Your task to perform on an android device: What's on the menu at Chipotle? Image 0: 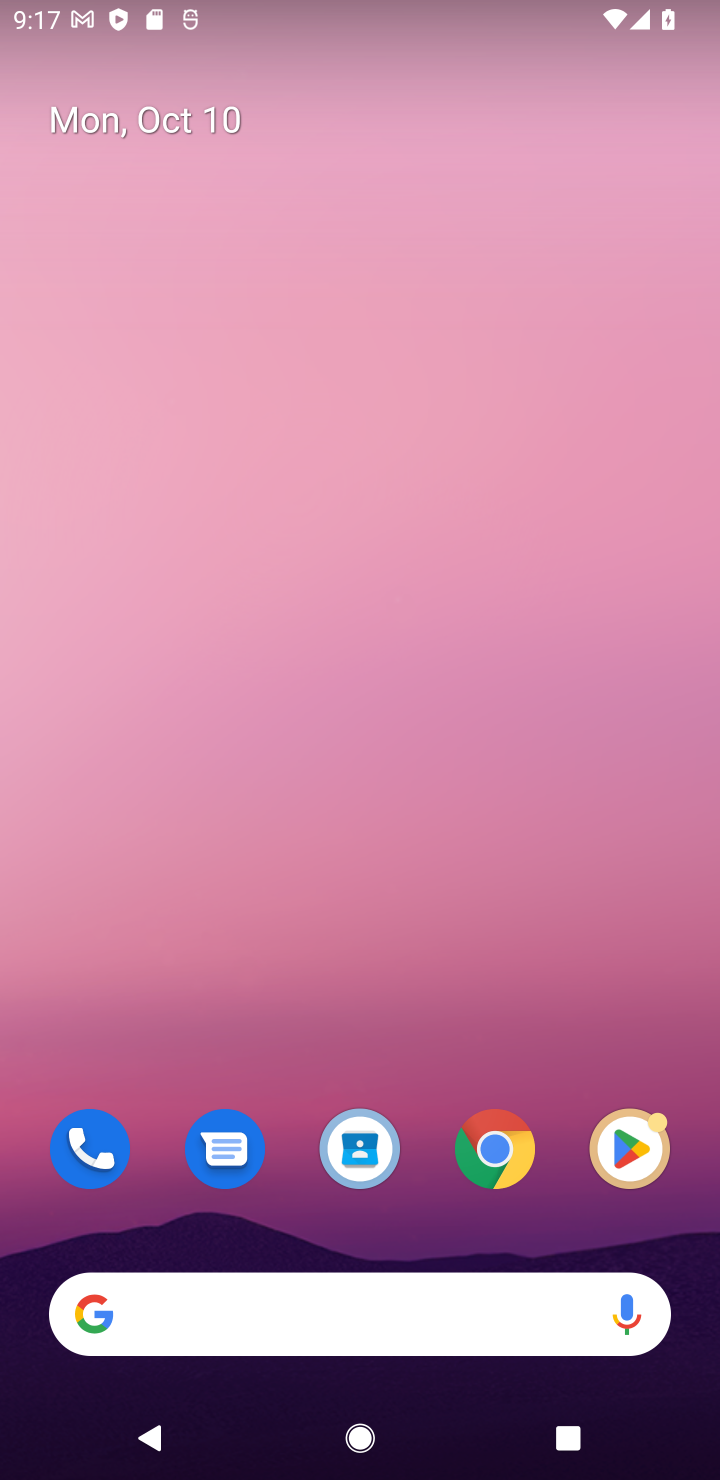
Step 0: click (257, 1317)
Your task to perform on an android device: What's on the menu at Chipotle? Image 1: 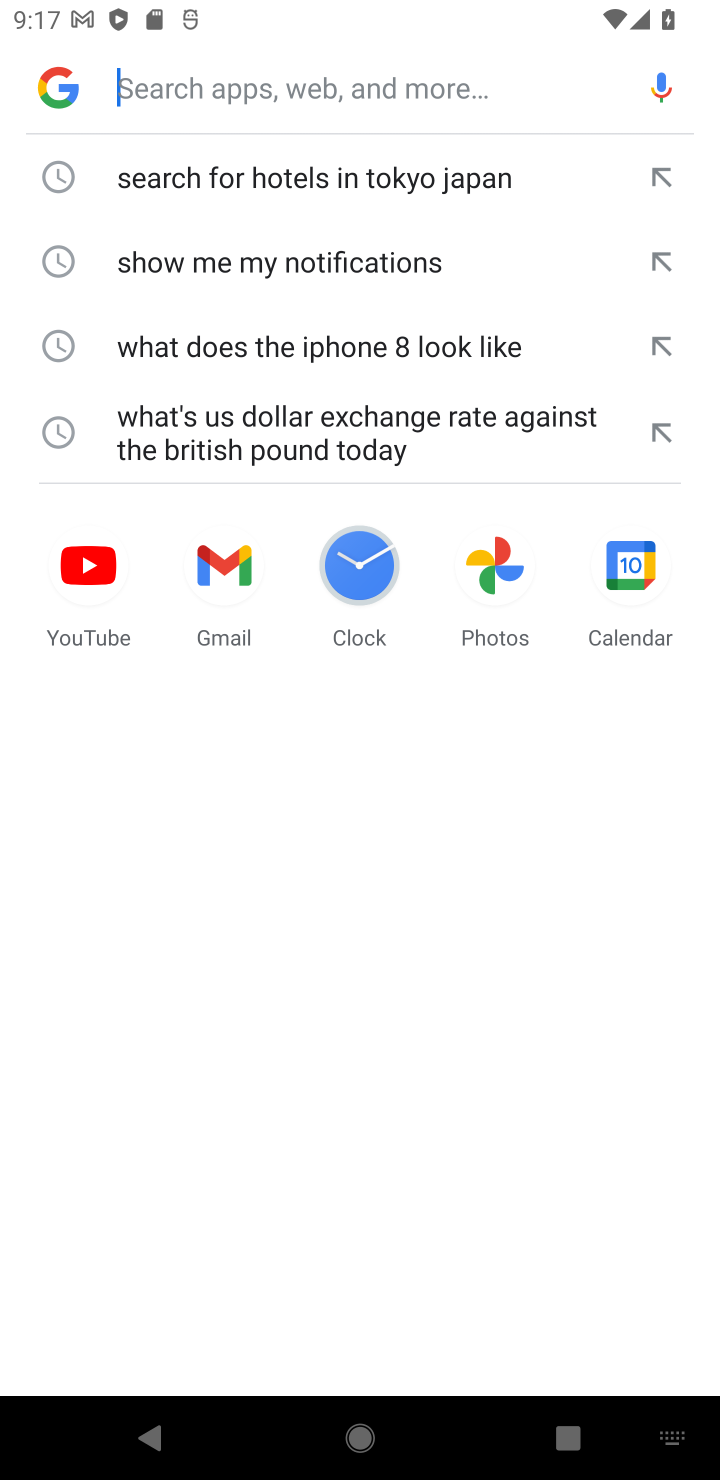
Step 1: type "What's on the menu at Chipotle?"
Your task to perform on an android device: What's on the menu at Chipotle? Image 2: 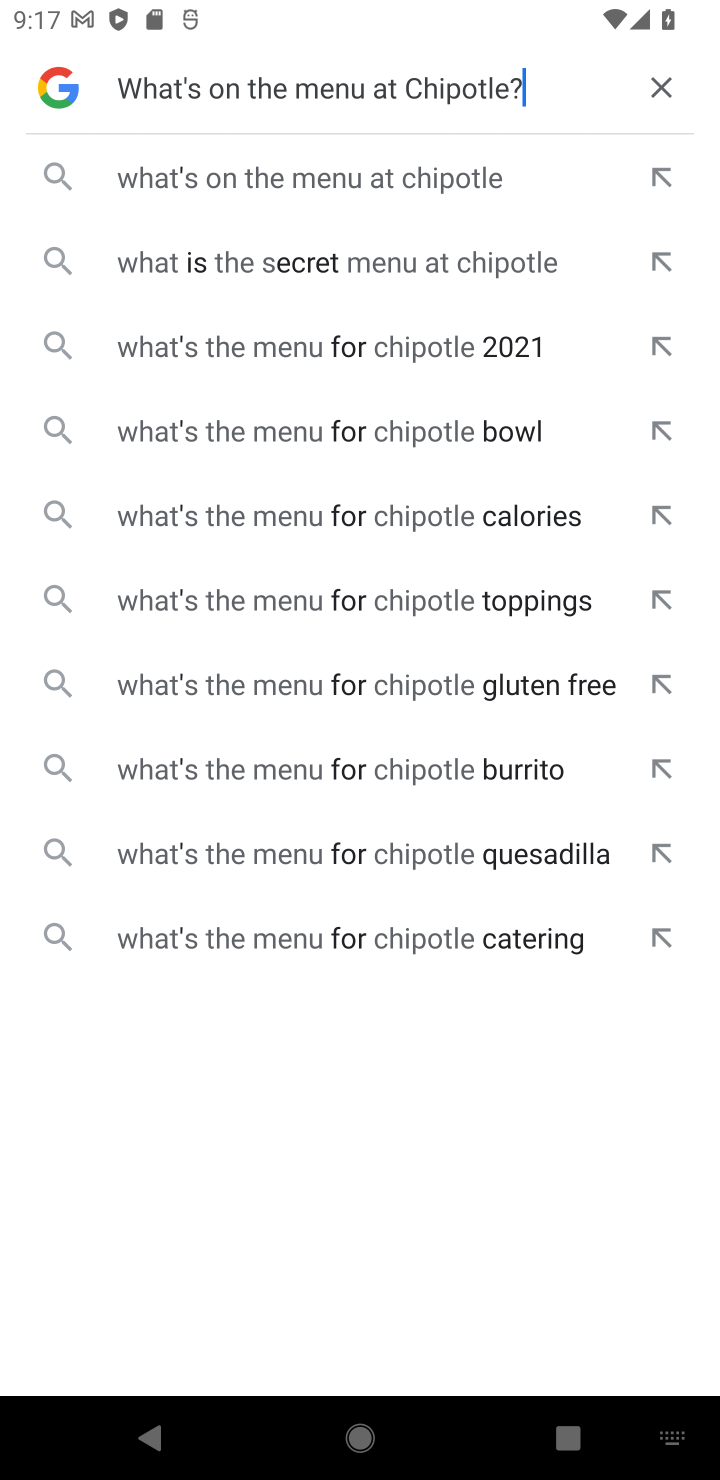
Step 2: click (314, 192)
Your task to perform on an android device: What's on the menu at Chipotle? Image 3: 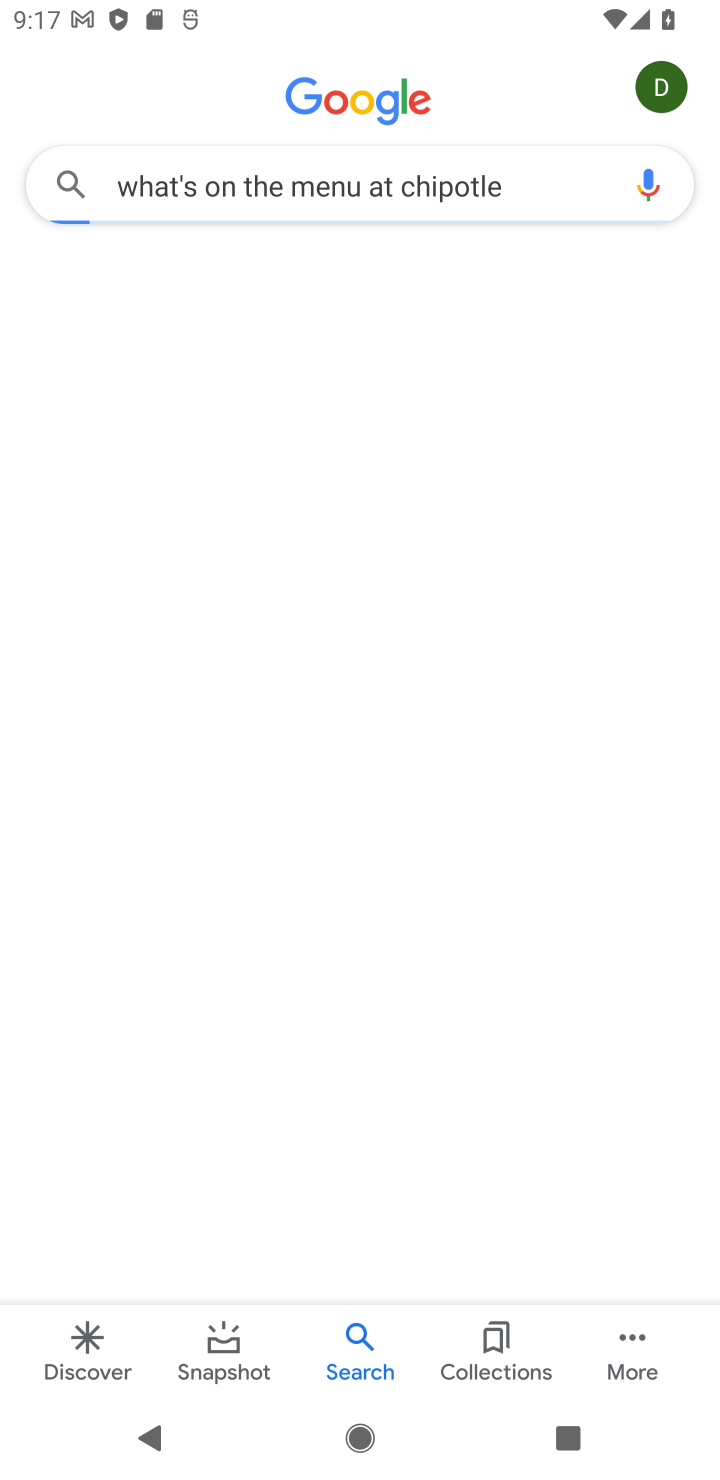
Step 3: task complete